Your task to perform on an android device: Go to Yahoo.com Image 0: 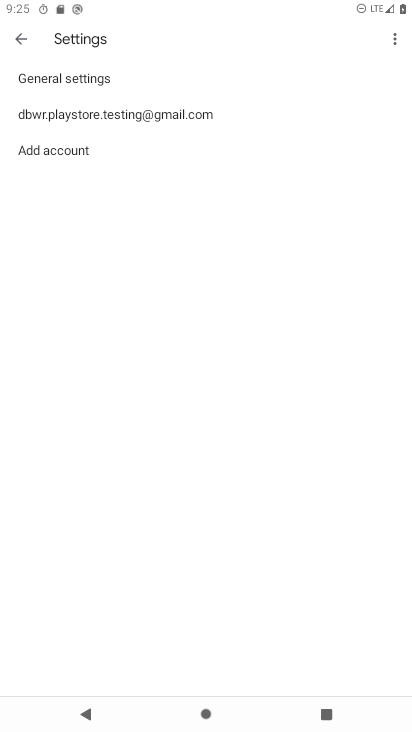
Step 0: press home button
Your task to perform on an android device: Go to Yahoo.com Image 1: 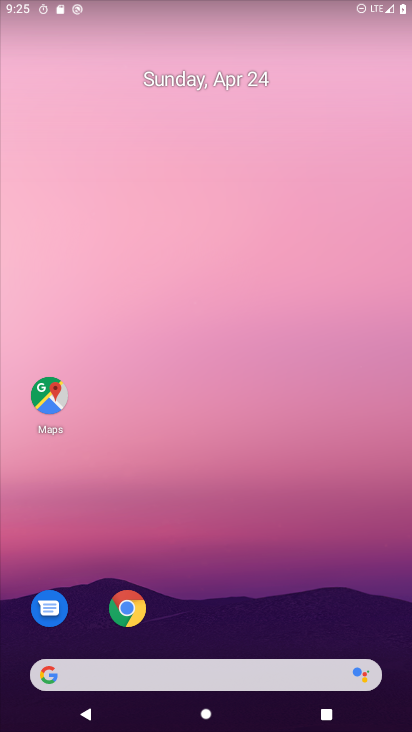
Step 1: click (250, 675)
Your task to perform on an android device: Go to Yahoo.com Image 2: 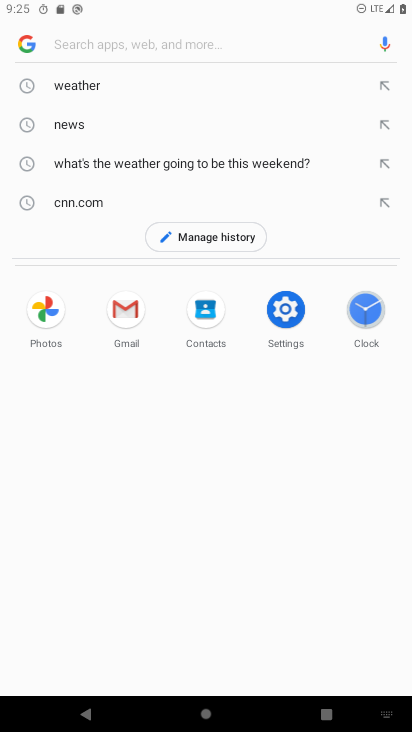
Step 2: type "yahoo.com"
Your task to perform on an android device: Go to Yahoo.com Image 3: 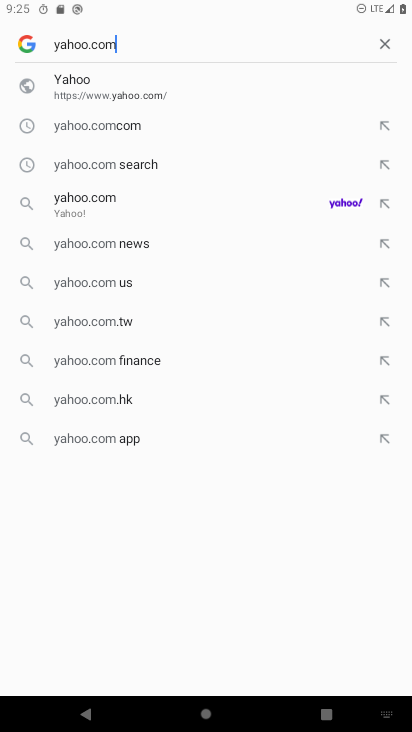
Step 3: click (260, 201)
Your task to perform on an android device: Go to Yahoo.com Image 4: 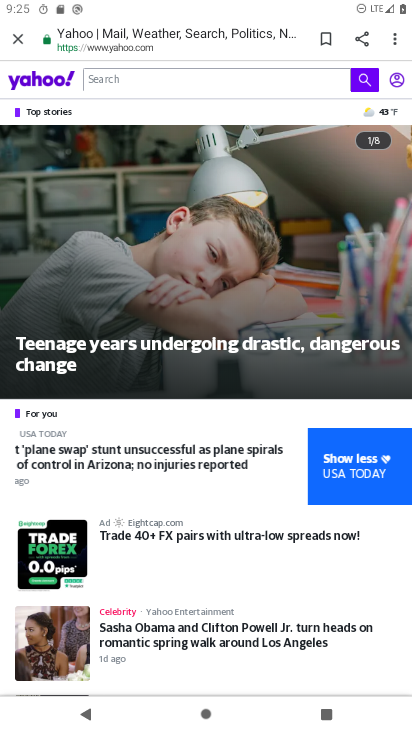
Step 4: task complete